Your task to perform on an android device: open device folders in google photos Image 0: 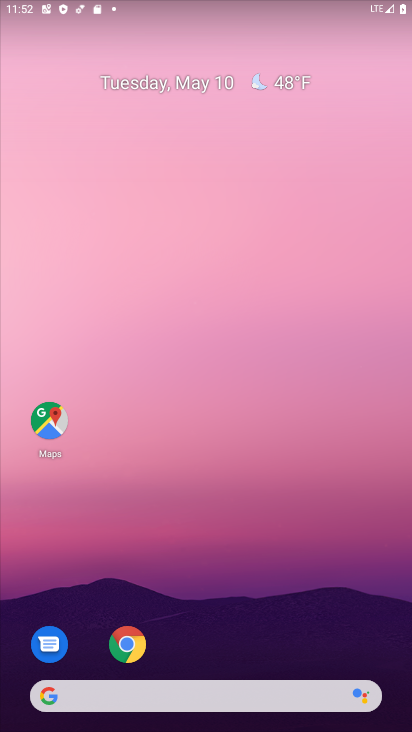
Step 0: drag from (201, 602) to (308, 0)
Your task to perform on an android device: open device folders in google photos Image 1: 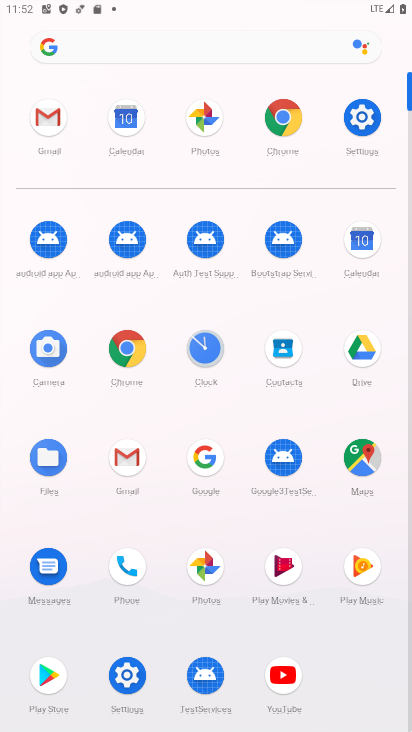
Step 1: click (205, 572)
Your task to perform on an android device: open device folders in google photos Image 2: 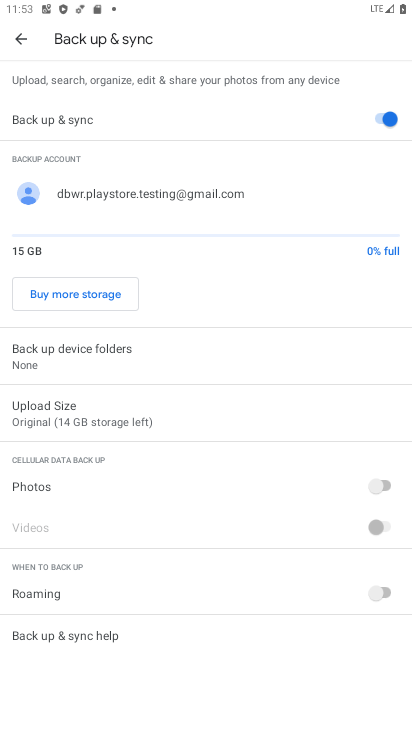
Step 2: click (21, 41)
Your task to perform on an android device: open device folders in google photos Image 3: 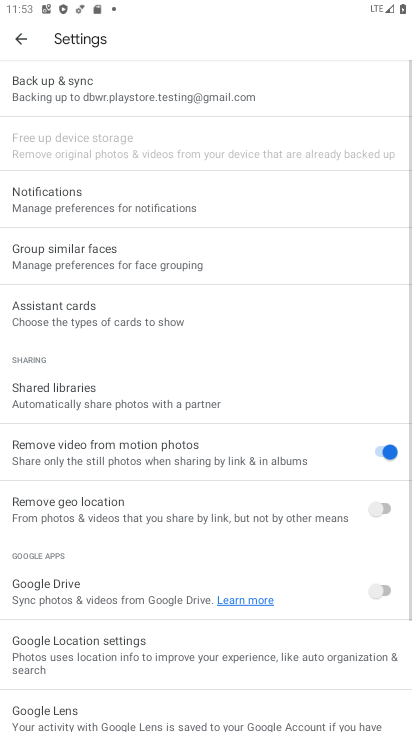
Step 3: click (20, 41)
Your task to perform on an android device: open device folders in google photos Image 4: 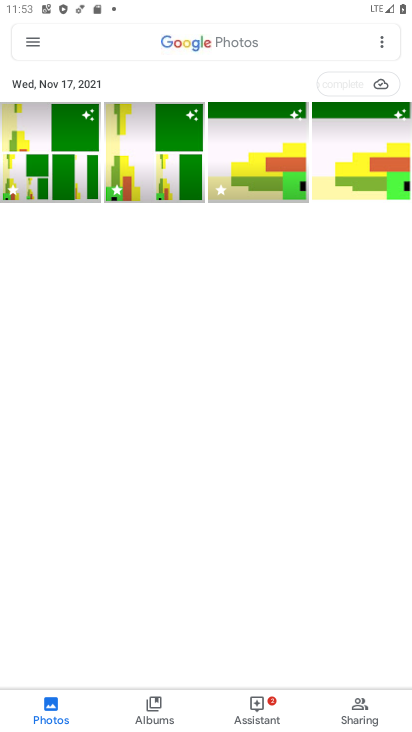
Step 4: click (20, 42)
Your task to perform on an android device: open device folders in google photos Image 5: 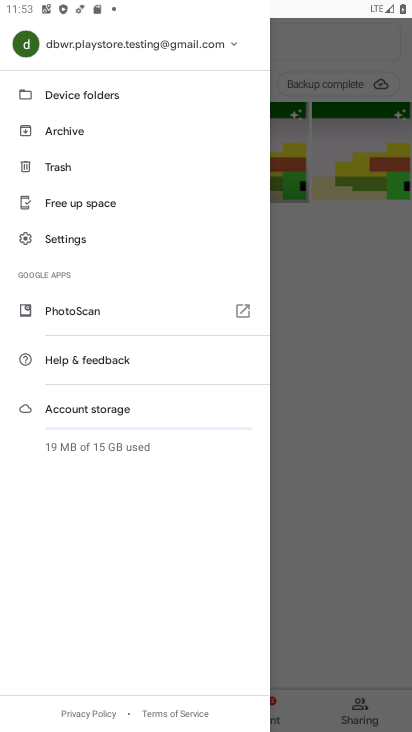
Step 5: click (104, 93)
Your task to perform on an android device: open device folders in google photos Image 6: 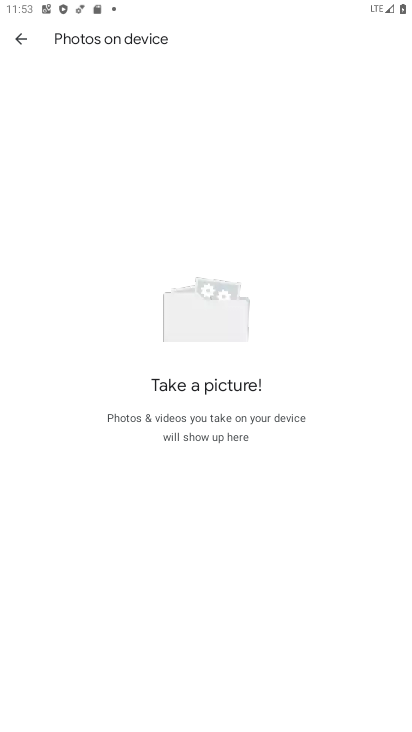
Step 6: task complete